Your task to perform on an android device: Open battery settings Image 0: 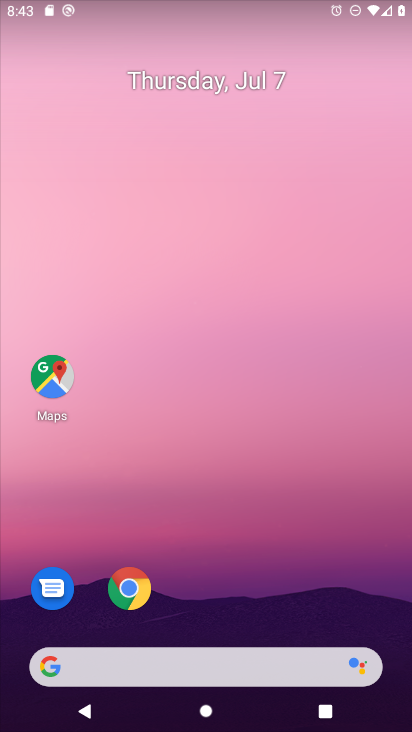
Step 0: drag from (273, 621) to (257, 231)
Your task to perform on an android device: Open battery settings Image 1: 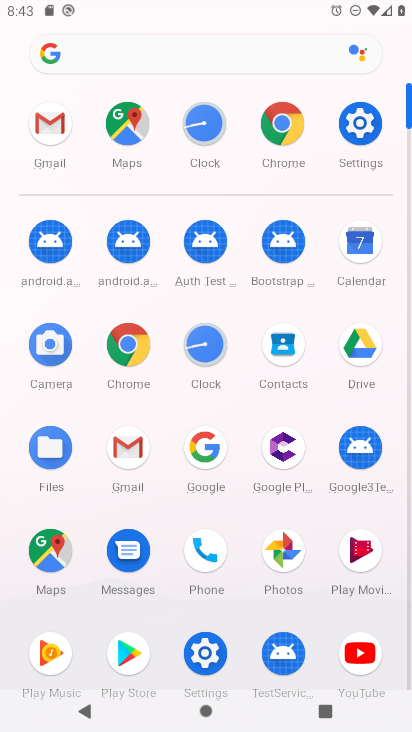
Step 1: click (214, 642)
Your task to perform on an android device: Open battery settings Image 2: 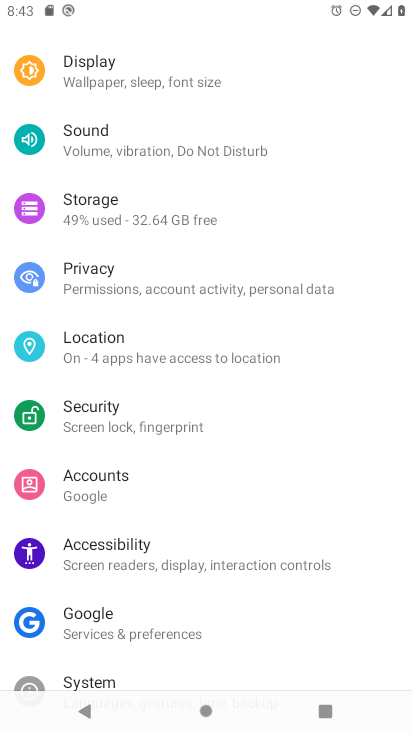
Step 2: drag from (182, 146) to (200, 519)
Your task to perform on an android device: Open battery settings Image 3: 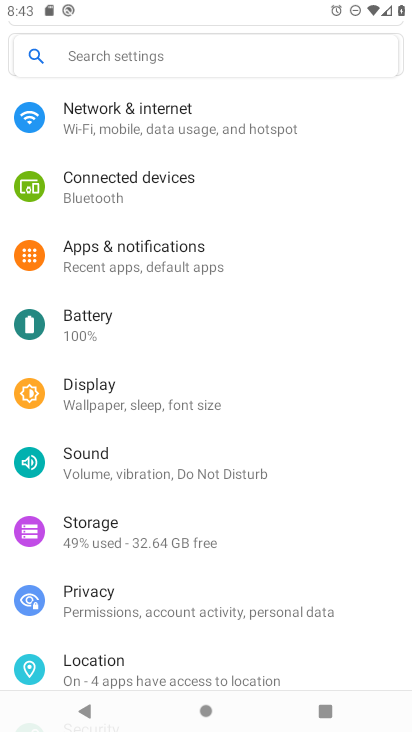
Step 3: click (101, 309)
Your task to perform on an android device: Open battery settings Image 4: 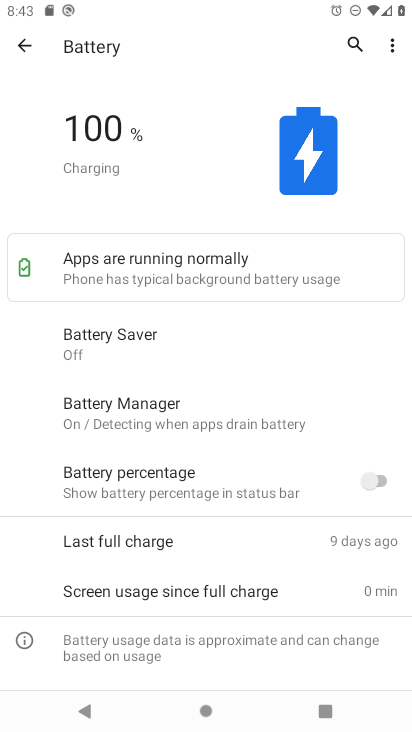
Step 4: task complete